Your task to perform on an android device: delete location history Image 0: 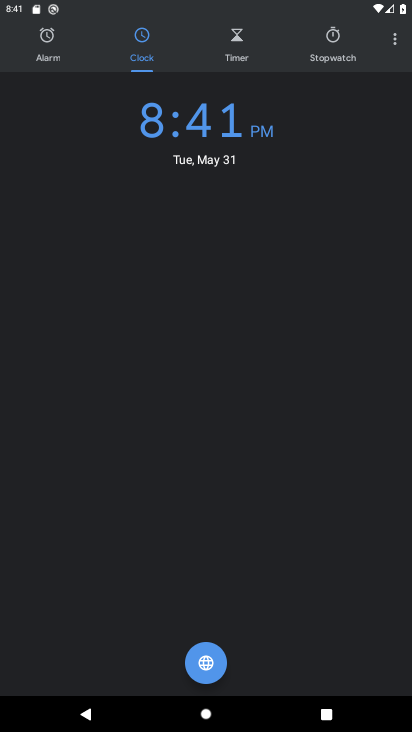
Step 0: press back button
Your task to perform on an android device: delete location history Image 1: 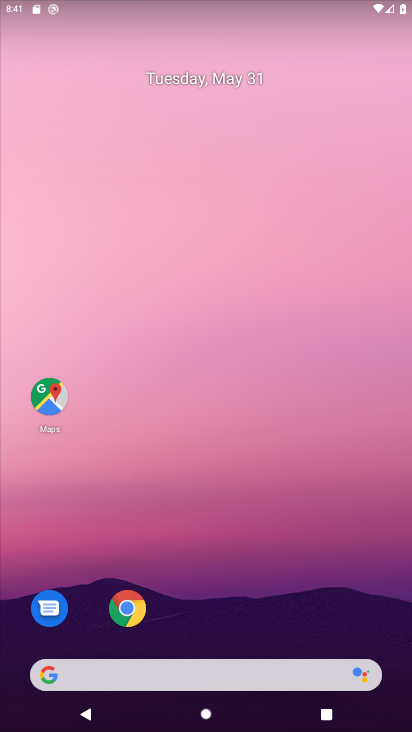
Step 1: click (48, 398)
Your task to perform on an android device: delete location history Image 2: 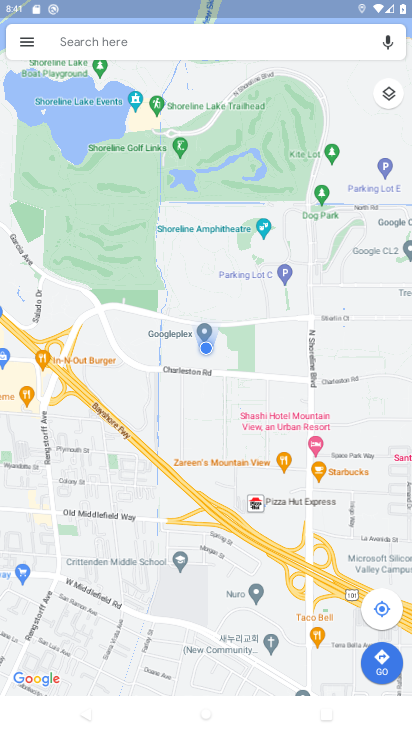
Step 2: click (27, 41)
Your task to perform on an android device: delete location history Image 3: 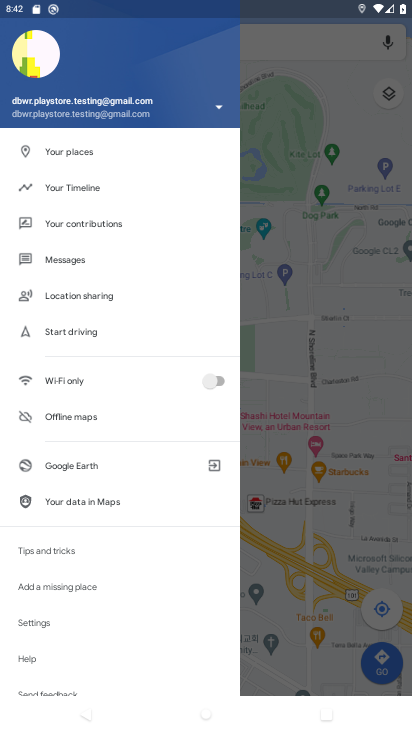
Step 3: click (47, 621)
Your task to perform on an android device: delete location history Image 4: 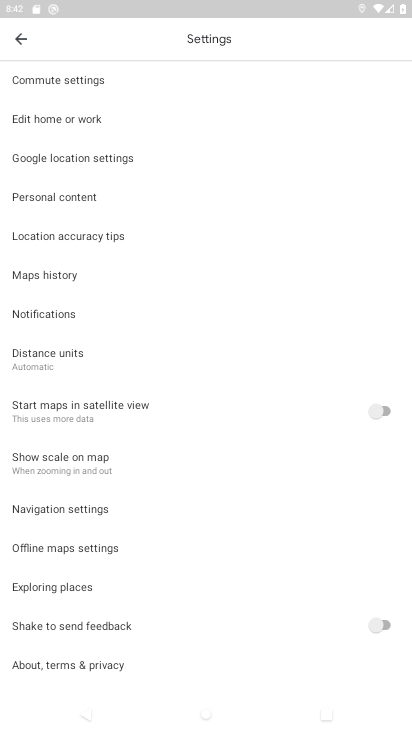
Step 4: click (80, 196)
Your task to perform on an android device: delete location history Image 5: 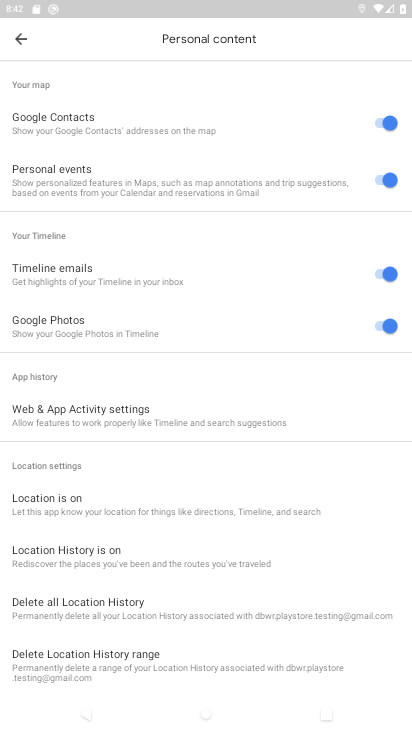
Step 5: click (134, 605)
Your task to perform on an android device: delete location history Image 6: 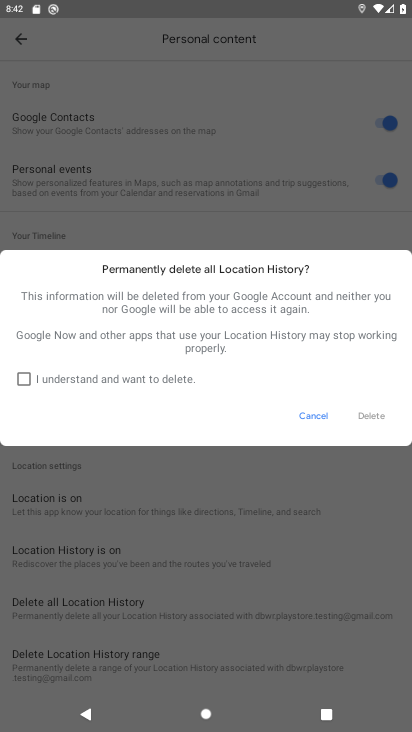
Step 6: click (30, 379)
Your task to perform on an android device: delete location history Image 7: 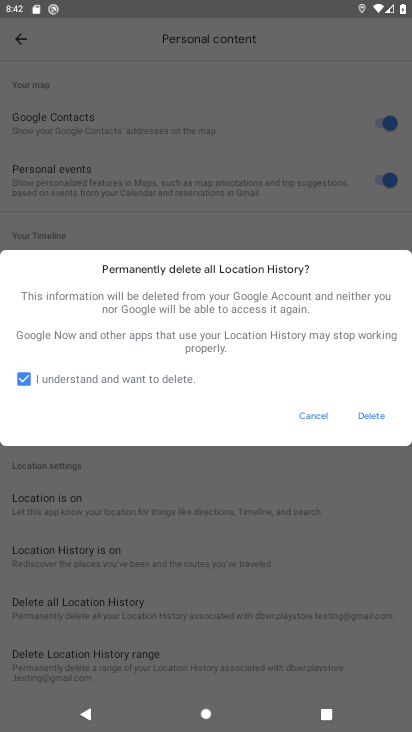
Step 7: click (367, 417)
Your task to perform on an android device: delete location history Image 8: 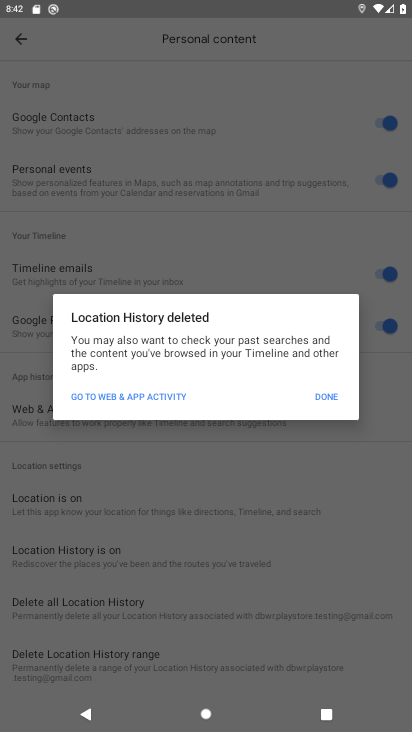
Step 8: click (320, 394)
Your task to perform on an android device: delete location history Image 9: 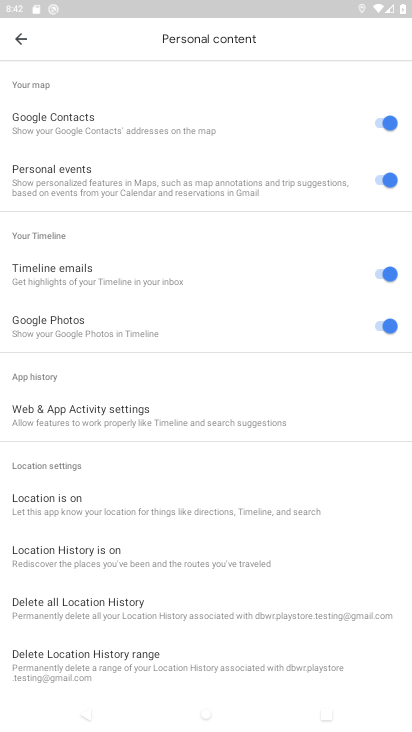
Step 9: task complete